Your task to perform on an android device: Go to ESPN.com Image 0: 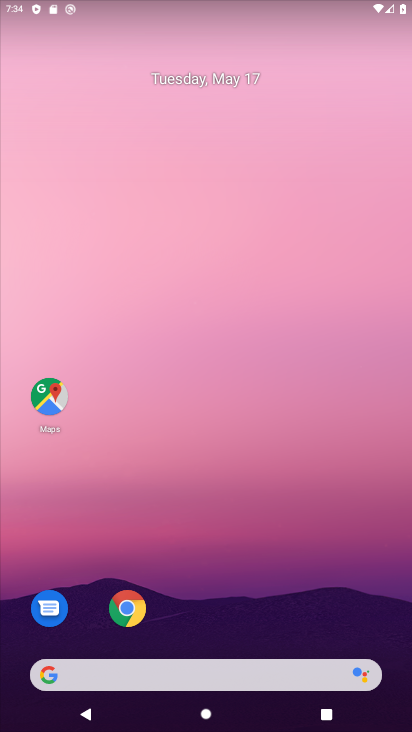
Step 0: click (131, 613)
Your task to perform on an android device: Go to ESPN.com Image 1: 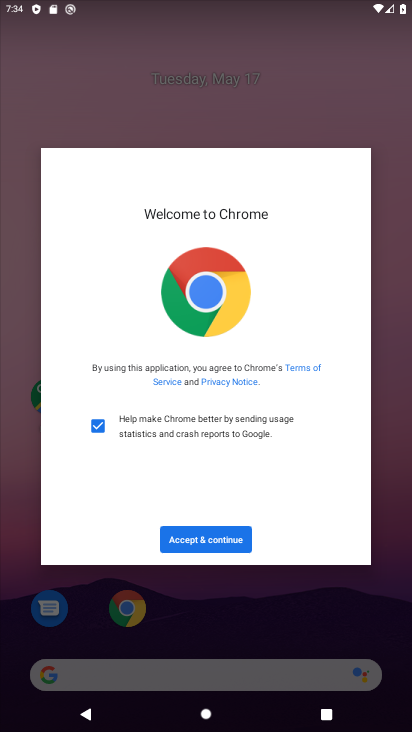
Step 1: click (251, 544)
Your task to perform on an android device: Go to ESPN.com Image 2: 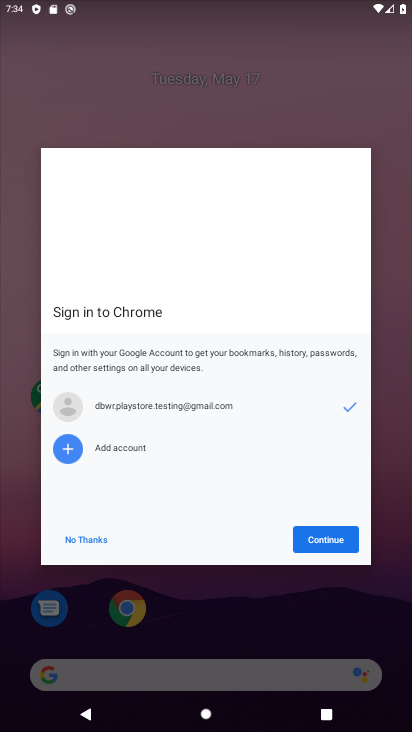
Step 2: click (324, 541)
Your task to perform on an android device: Go to ESPN.com Image 3: 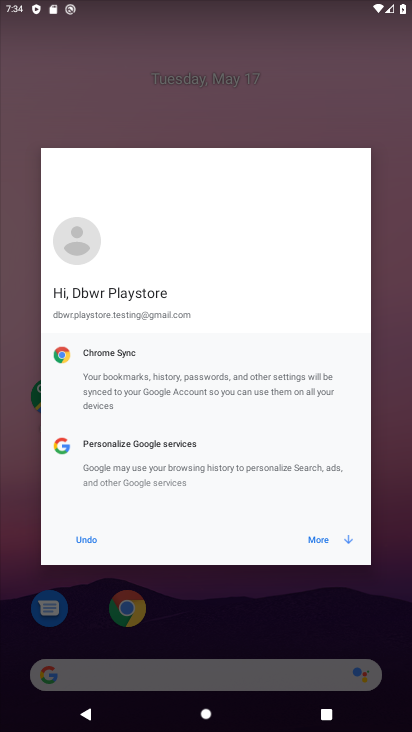
Step 3: click (324, 541)
Your task to perform on an android device: Go to ESPN.com Image 4: 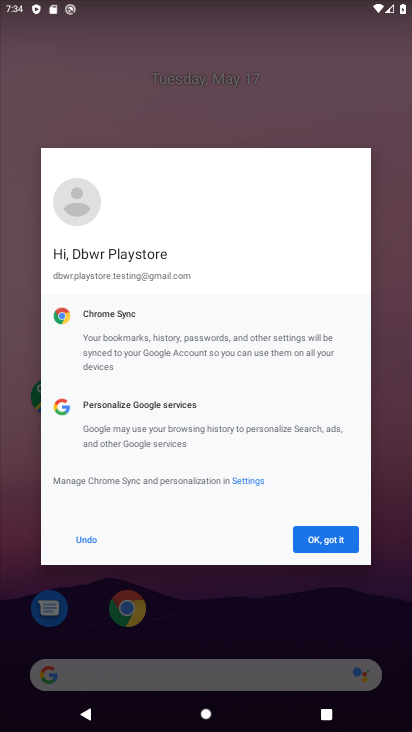
Step 4: click (324, 541)
Your task to perform on an android device: Go to ESPN.com Image 5: 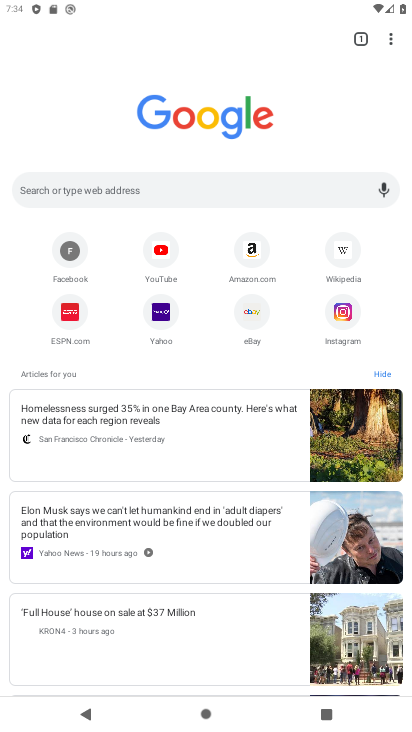
Step 5: click (68, 321)
Your task to perform on an android device: Go to ESPN.com Image 6: 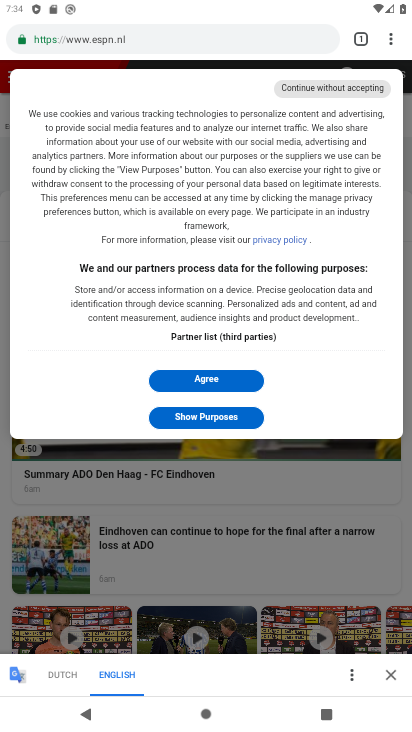
Step 6: task complete